Your task to perform on an android device: turn pop-ups off in chrome Image 0: 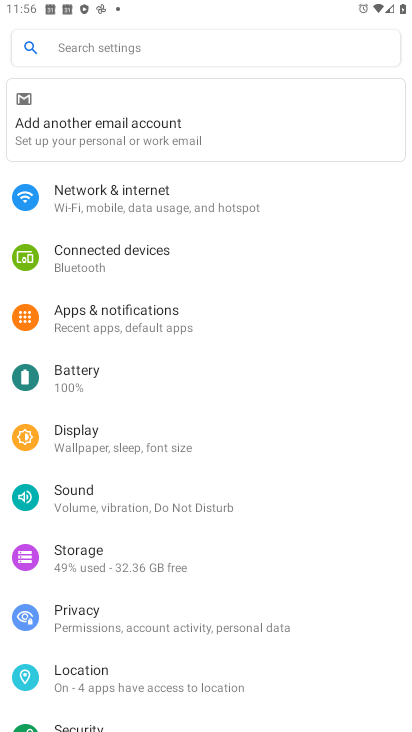
Step 0: drag from (171, 653) to (152, 262)
Your task to perform on an android device: turn pop-ups off in chrome Image 1: 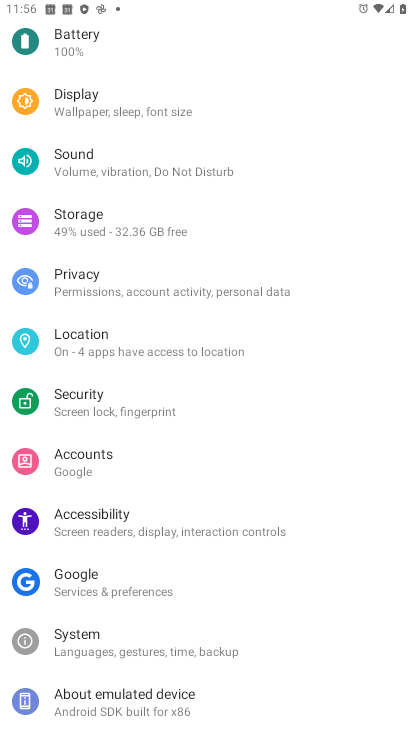
Step 1: press home button
Your task to perform on an android device: turn pop-ups off in chrome Image 2: 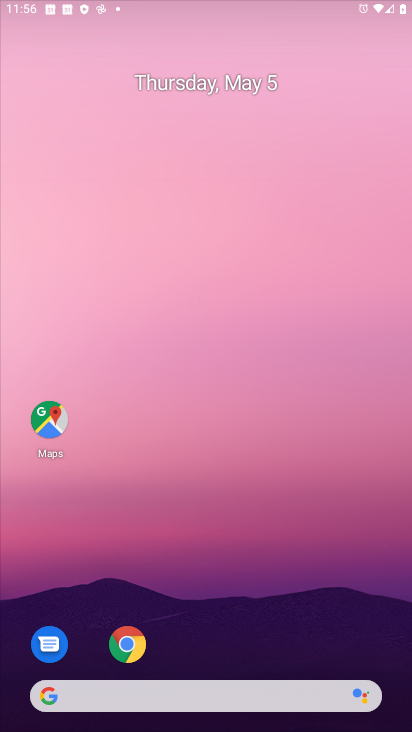
Step 2: drag from (195, 611) to (238, 322)
Your task to perform on an android device: turn pop-ups off in chrome Image 3: 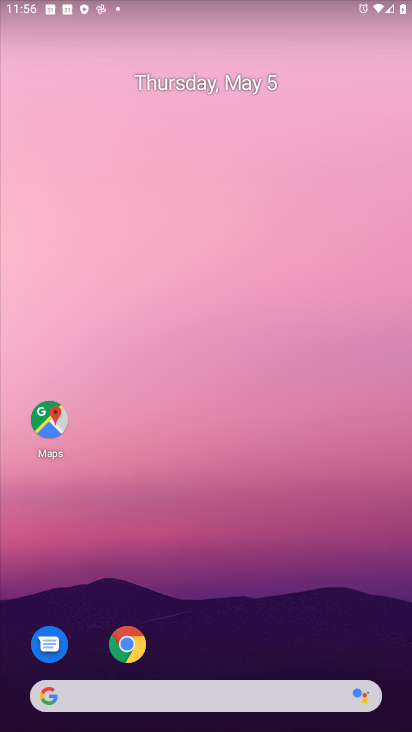
Step 3: drag from (206, 618) to (193, 316)
Your task to perform on an android device: turn pop-ups off in chrome Image 4: 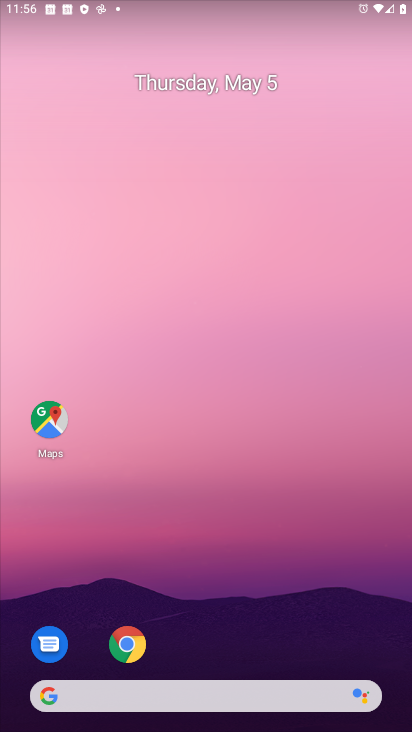
Step 4: drag from (210, 619) to (233, 0)
Your task to perform on an android device: turn pop-ups off in chrome Image 5: 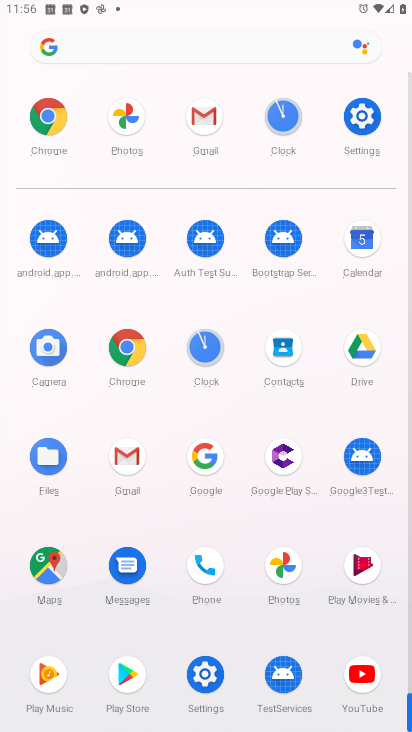
Step 5: drag from (239, 636) to (245, 226)
Your task to perform on an android device: turn pop-ups off in chrome Image 6: 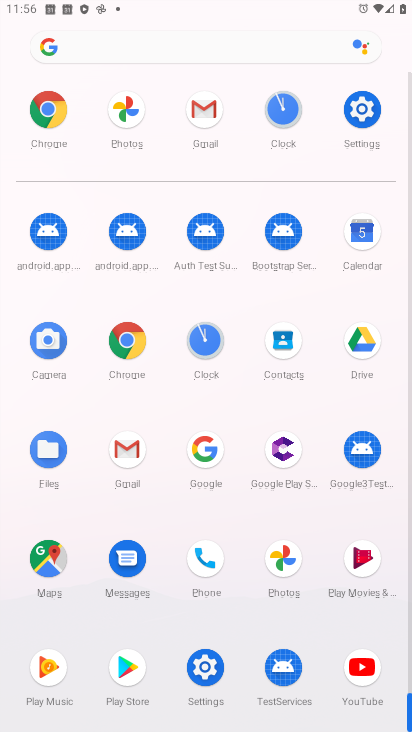
Step 6: drag from (245, 659) to (260, 425)
Your task to perform on an android device: turn pop-ups off in chrome Image 7: 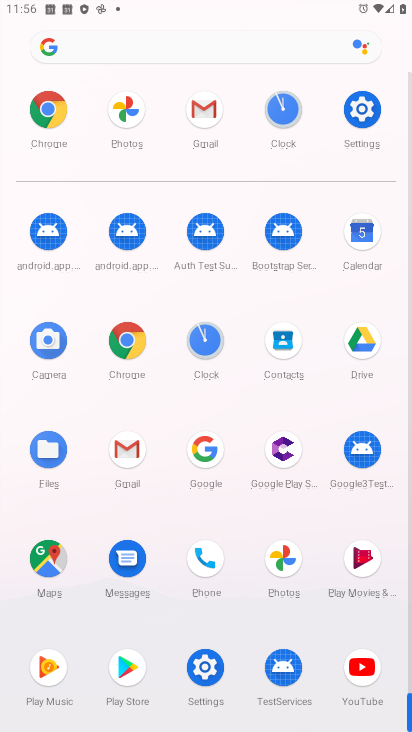
Step 7: click (122, 332)
Your task to perform on an android device: turn pop-ups off in chrome Image 8: 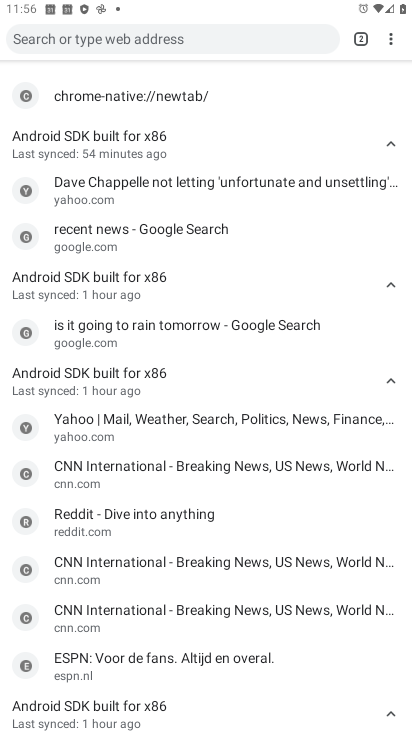
Step 8: drag from (217, 631) to (222, 280)
Your task to perform on an android device: turn pop-ups off in chrome Image 9: 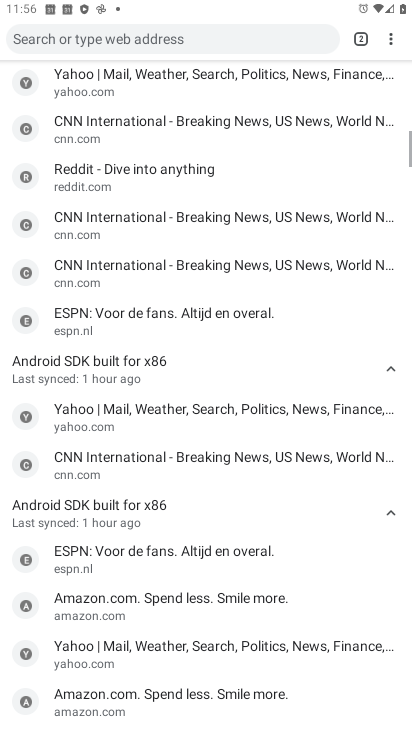
Step 9: drag from (225, 187) to (169, 658)
Your task to perform on an android device: turn pop-ups off in chrome Image 10: 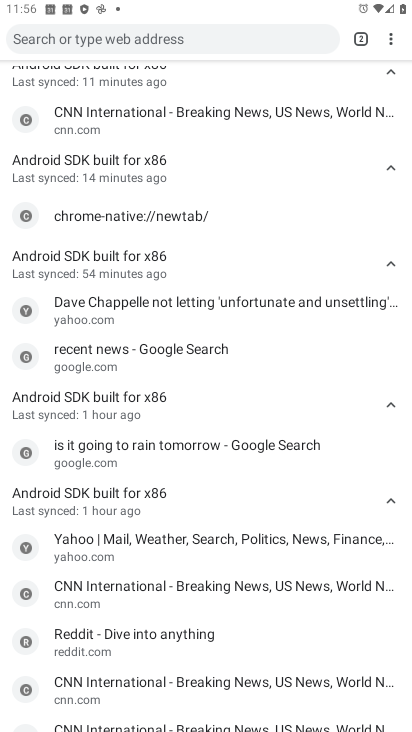
Step 10: drag from (211, 100) to (265, 690)
Your task to perform on an android device: turn pop-ups off in chrome Image 11: 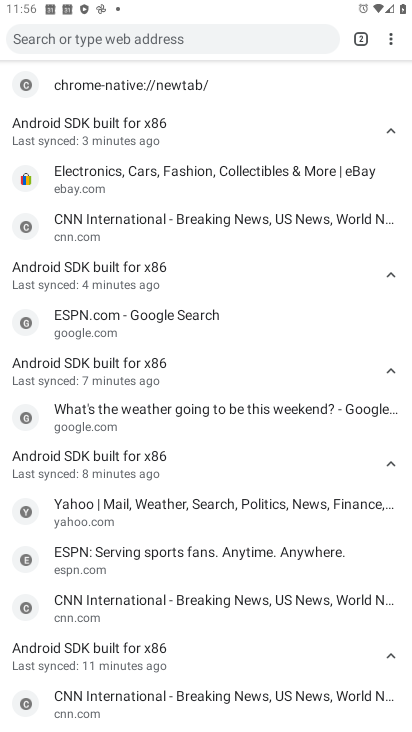
Step 11: drag from (247, 120) to (265, 608)
Your task to perform on an android device: turn pop-ups off in chrome Image 12: 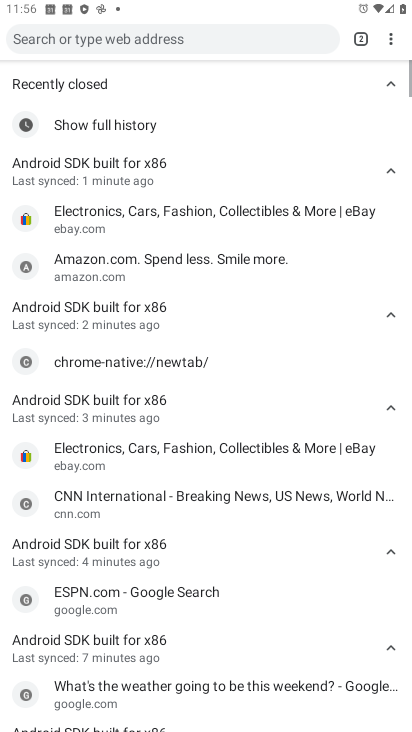
Step 12: drag from (210, 135) to (254, 581)
Your task to perform on an android device: turn pop-ups off in chrome Image 13: 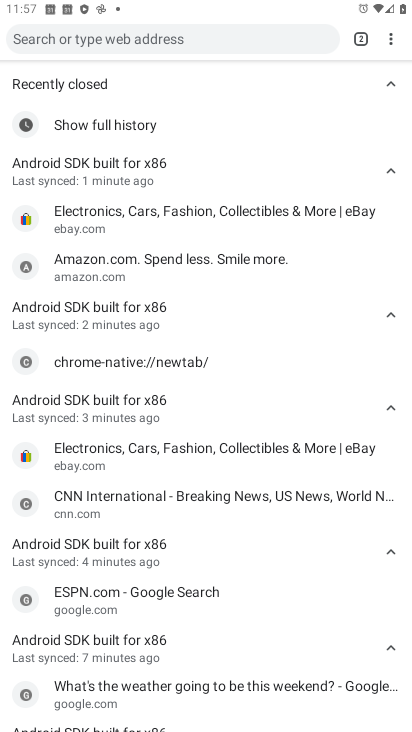
Step 13: drag from (398, 32) to (298, 334)
Your task to perform on an android device: turn pop-ups off in chrome Image 14: 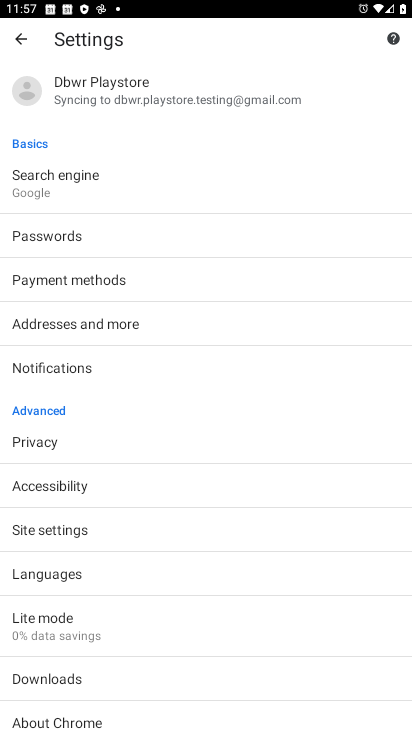
Step 14: drag from (214, 533) to (226, 177)
Your task to perform on an android device: turn pop-ups off in chrome Image 15: 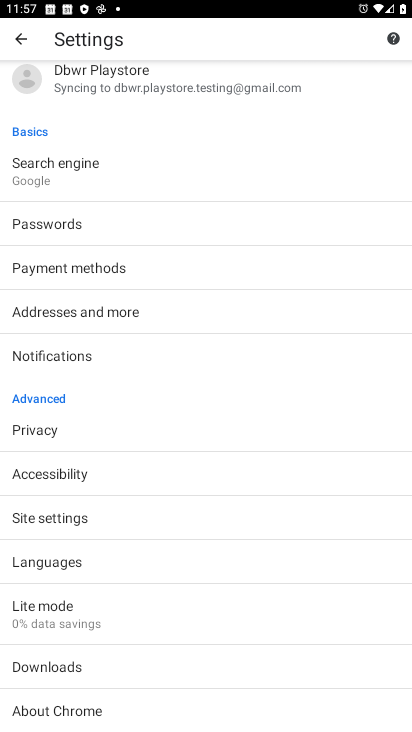
Step 15: click (91, 513)
Your task to perform on an android device: turn pop-ups off in chrome Image 16: 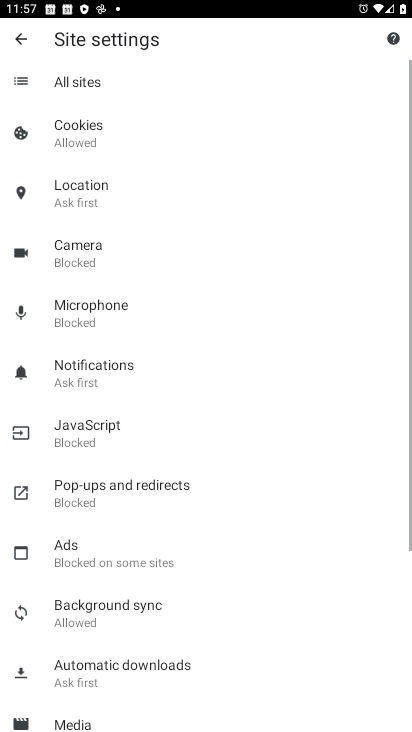
Step 16: drag from (209, 558) to (254, 274)
Your task to perform on an android device: turn pop-ups off in chrome Image 17: 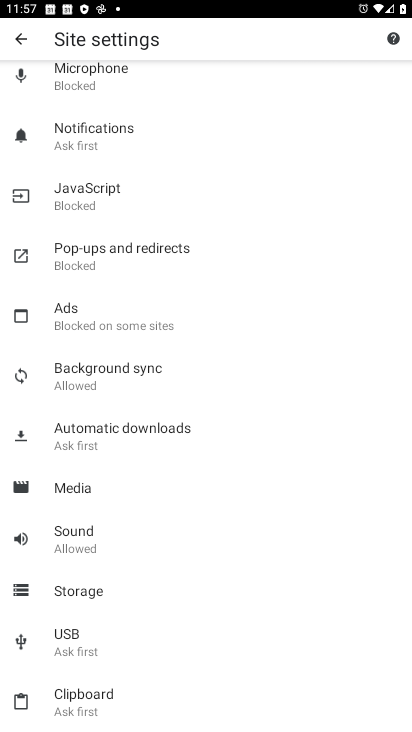
Step 17: click (149, 258)
Your task to perform on an android device: turn pop-ups off in chrome Image 18: 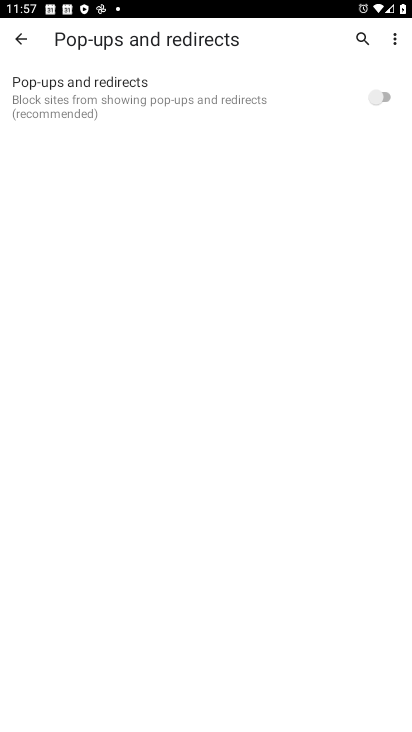
Step 18: task complete